Your task to perform on an android device: Find coffee shops on Maps Image 0: 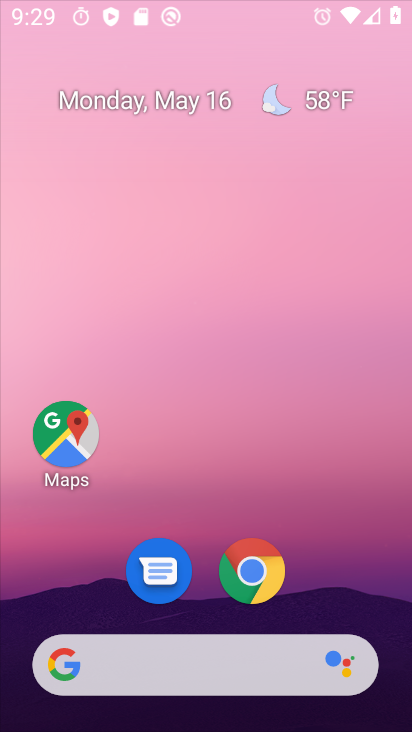
Step 0: drag from (291, 556) to (242, 163)
Your task to perform on an android device: Find coffee shops on Maps Image 1: 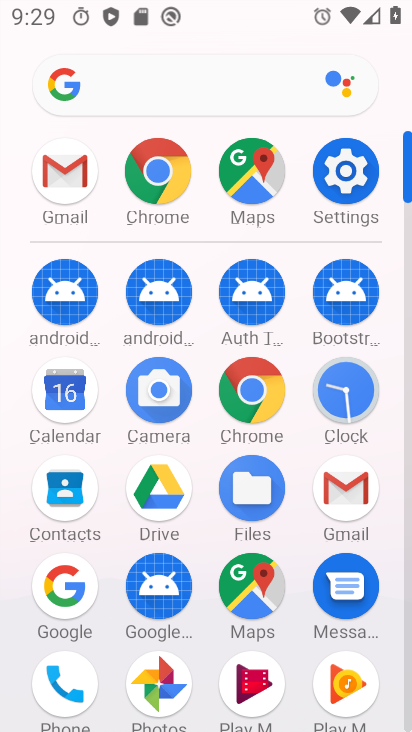
Step 1: click (235, 175)
Your task to perform on an android device: Find coffee shops on Maps Image 2: 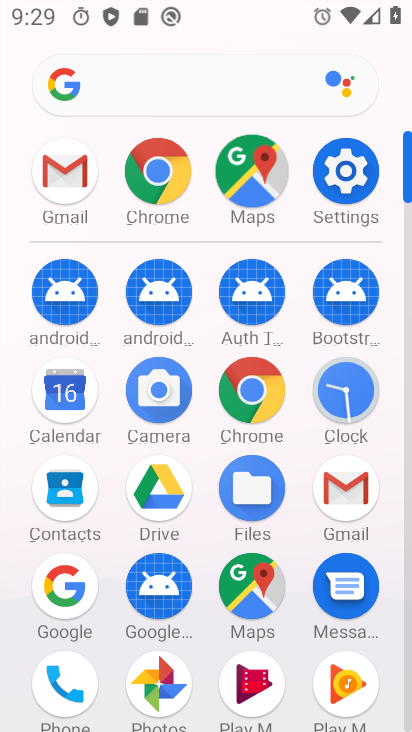
Step 2: click (238, 174)
Your task to perform on an android device: Find coffee shops on Maps Image 3: 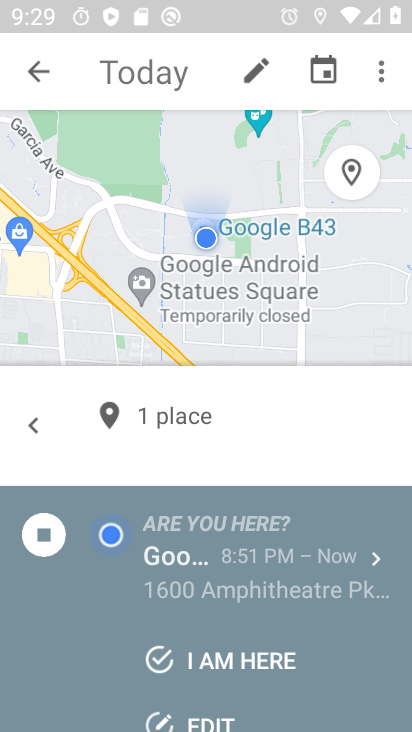
Step 3: drag from (201, 355) to (181, 101)
Your task to perform on an android device: Find coffee shops on Maps Image 4: 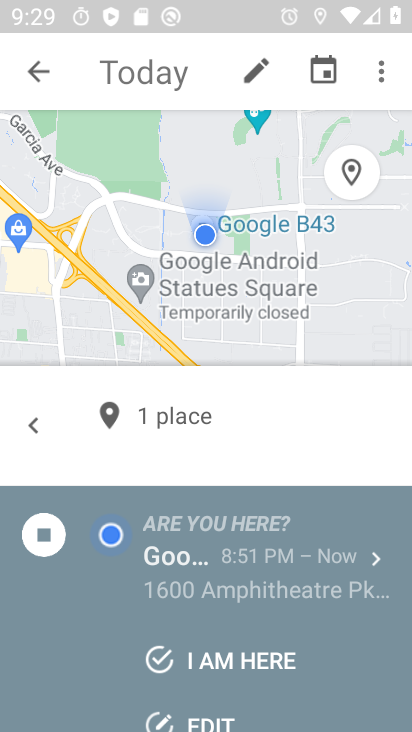
Step 4: drag from (243, 339) to (246, 156)
Your task to perform on an android device: Find coffee shops on Maps Image 5: 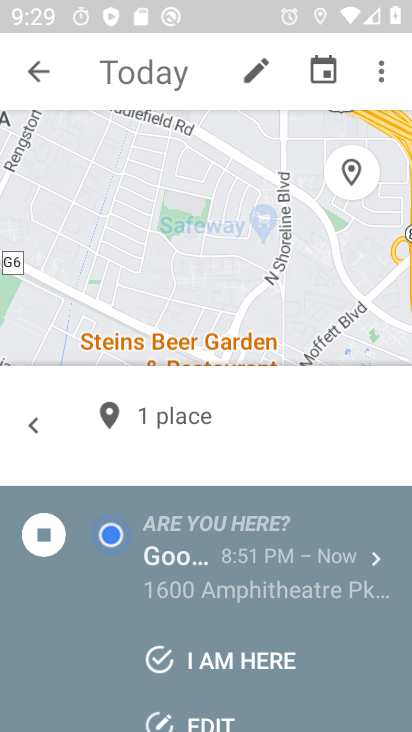
Step 5: drag from (290, 257) to (299, 37)
Your task to perform on an android device: Find coffee shops on Maps Image 6: 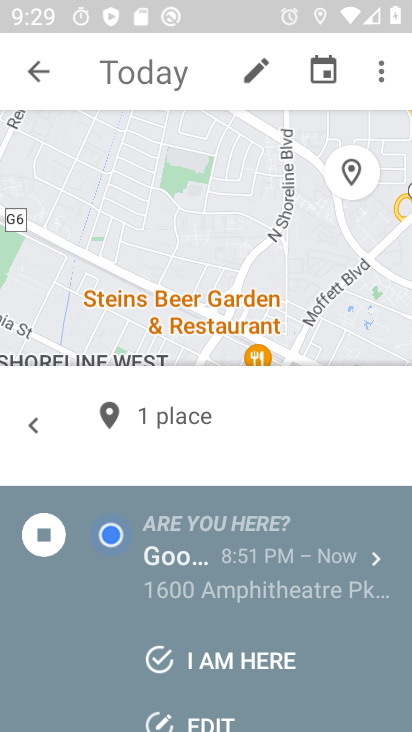
Step 6: drag from (256, 299) to (213, 41)
Your task to perform on an android device: Find coffee shops on Maps Image 7: 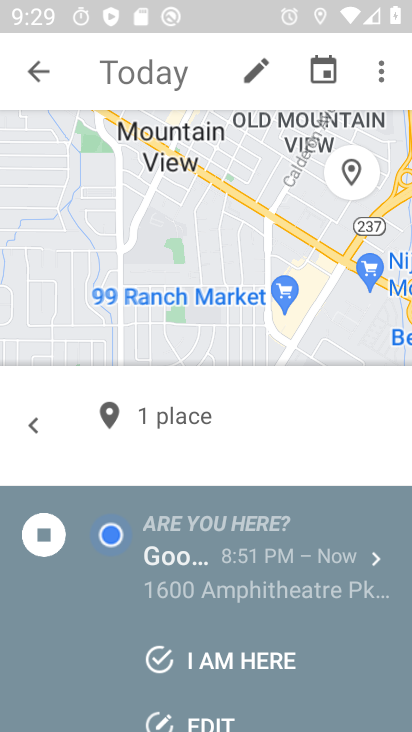
Step 7: drag from (213, 326) to (204, 94)
Your task to perform on an android device: Find coffee shops on Maps Image 8: 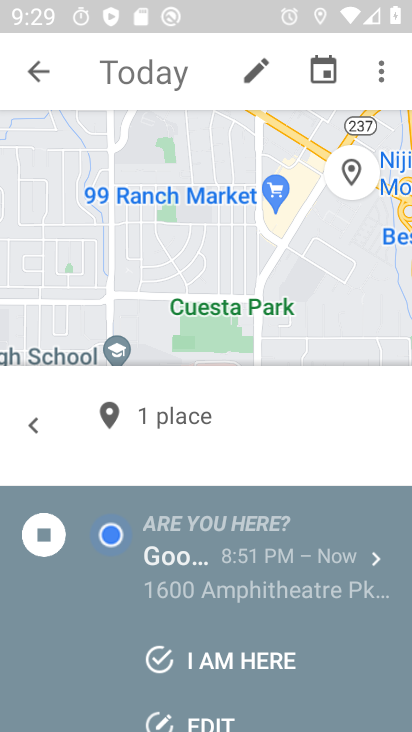
Step 8: drag from (244, 314) to (259, 36)
Your task to perform on an android device: Find coffee shops on Maps Image 9: 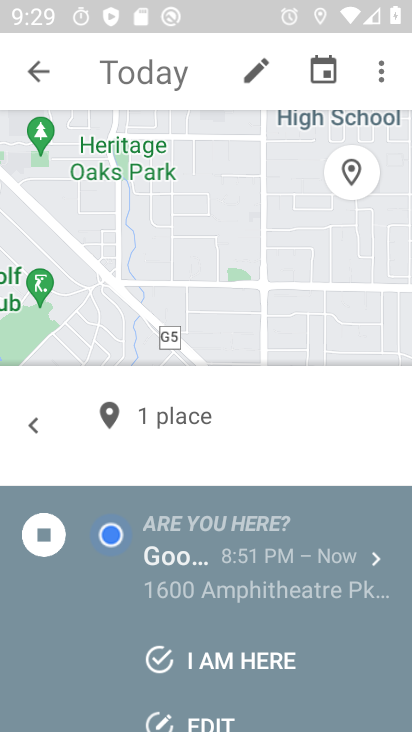
Step 9: drag from (287, 351) to (255, 82)
Your task to perform on an android device: Find coffee shops on Maps Image 10: 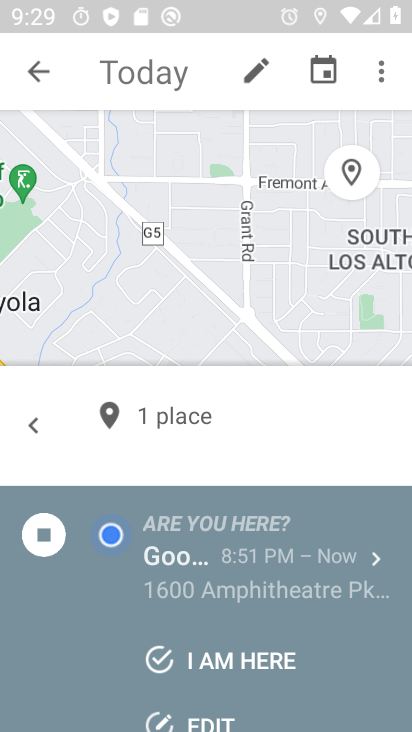
Step 10: drag from (278, 360) to (270, 119)
Your task to perform on an android device: Find coffee shops on Maps Image 11: 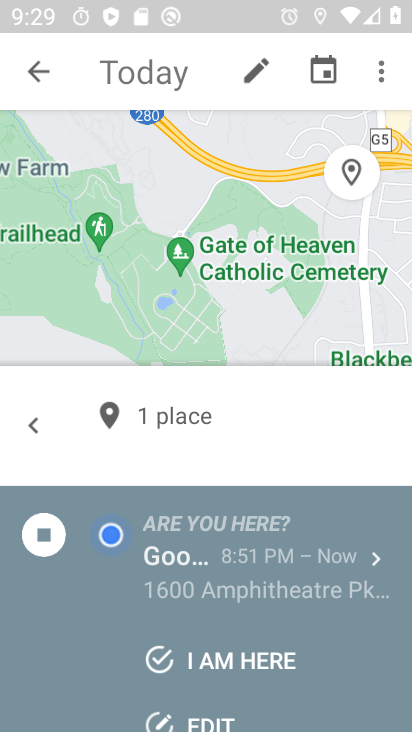
Step 11: drag from (300, 276) to (276, 110)
Your task to perform on an android device: Find coffee shops on Maps Image 12: 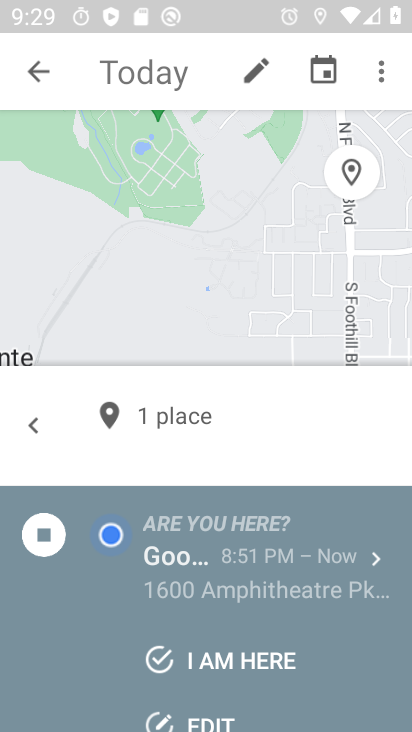
Step 12: drag from (269, 359) to (218, 93)
Your task to perform on an android device: Find coffee shops on Maps Image 13: 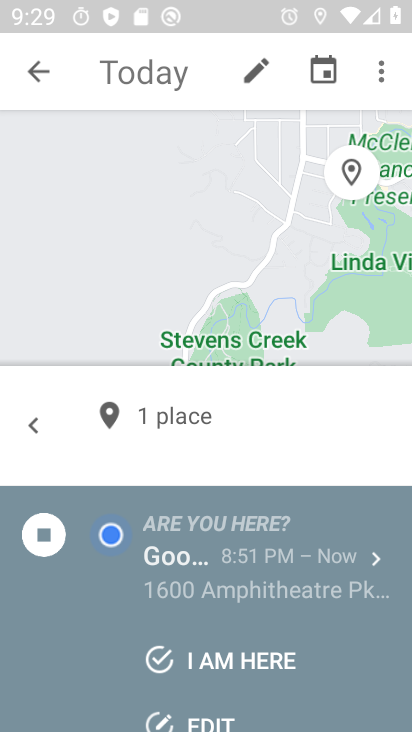
Step 13: drag from (248, 327) to (209, 62)
Your task to perform on an android device: Find coffee shops on Maps Image 14: 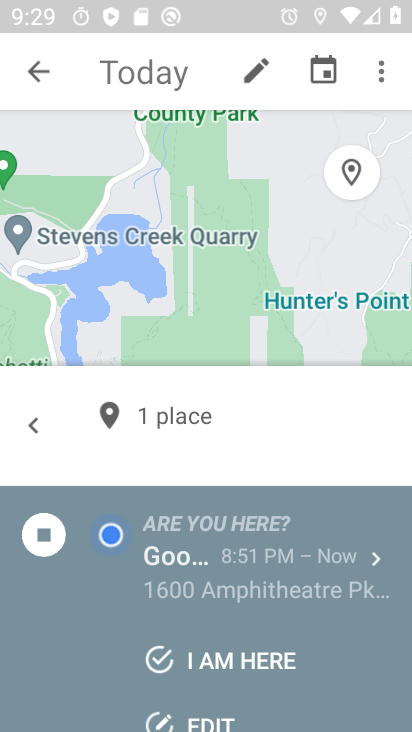
Step 14: click (173, 182)
Your task to perform on an android device: Find coffee shops on Maps Image 15: 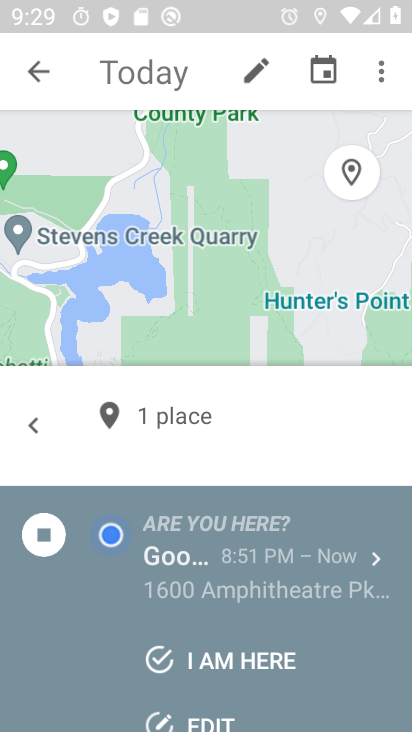
Step 15: drag from (252, 320) to (263, 153)
Your task to perform on an android device: Find coffee shops on Maps Image 16: 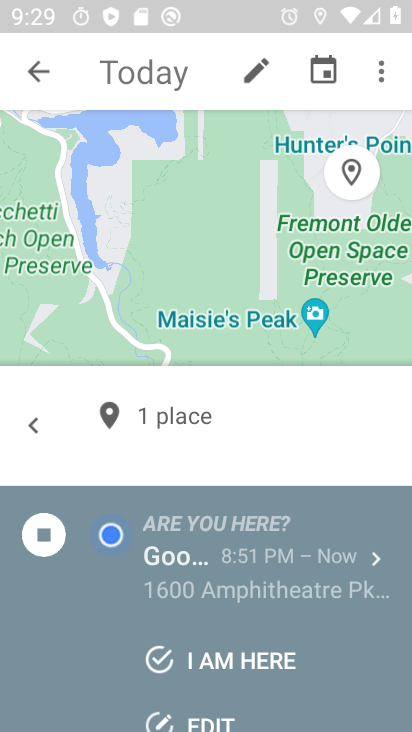
Step 16: drag from (302, 262) to (277, 120)
Your task to perform on an android device: Find coffee shops on Maps Image 17: 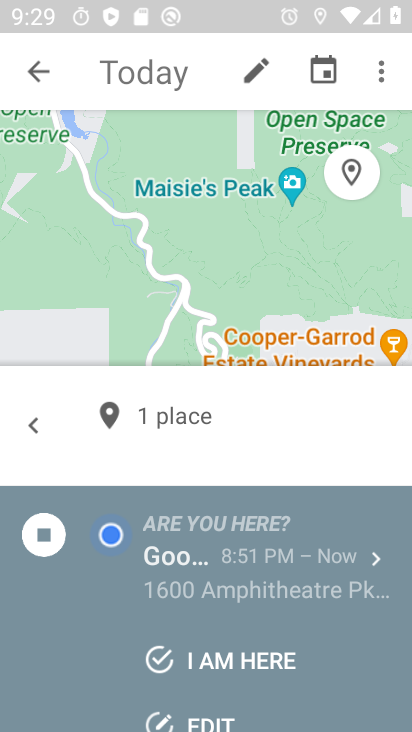
Step 17: drag from (327, 326) to (275, 76)
Your task to perform on an android device: Find coffee shops on Maps Image 18: 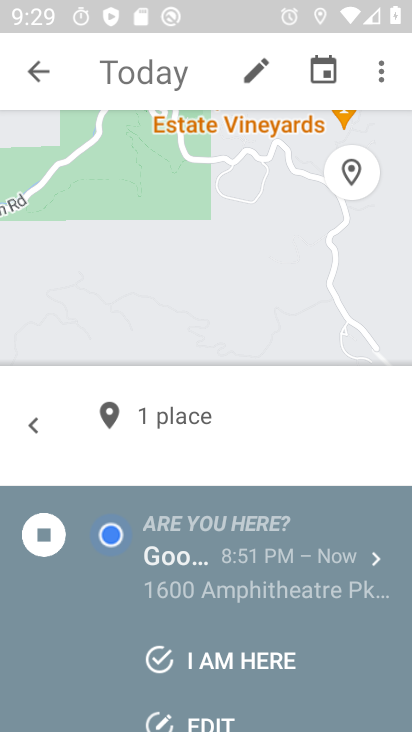
Step 18: drag from (284, 480) to (238, 183)
Your task to perform on an android device: Find coffee shops on Maps Image 19: 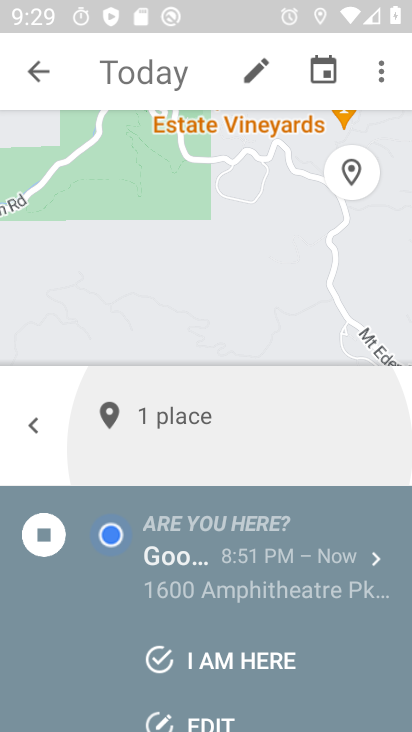
Step 19: drag from (304, 457) to (264, 207)
Your task to perform on an android device: Find coffee shops on Maps Image 20: 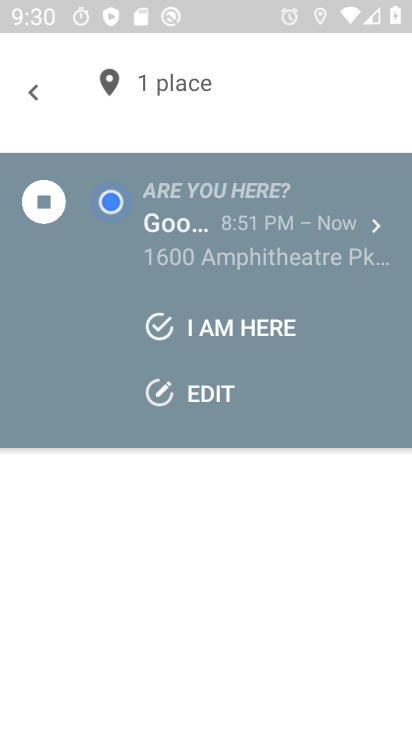
Step 20: click (42, 96)
Your task to perform on an android device: Find coffee shops on Maps Image 21: 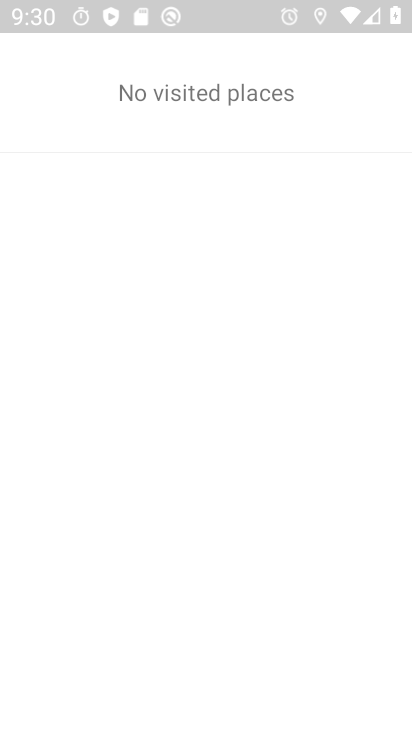
Step 21: press back button
Your task to perform on an android device: Find coffee shops on Maps Image 22: 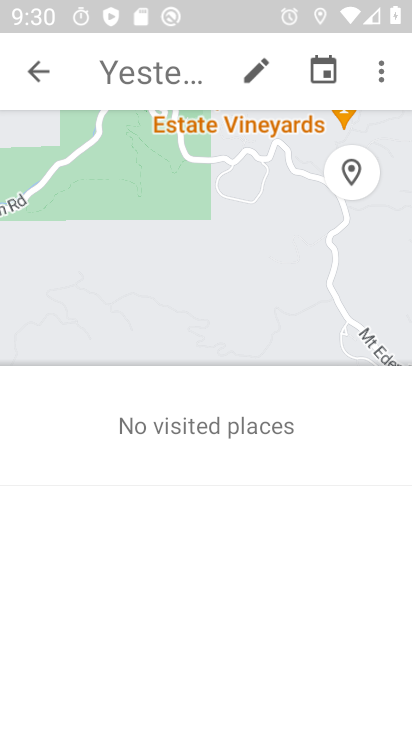
Step 22: click (40, 83)
Your task to perform on an android device: Find coffee shops on Maps Image 23: 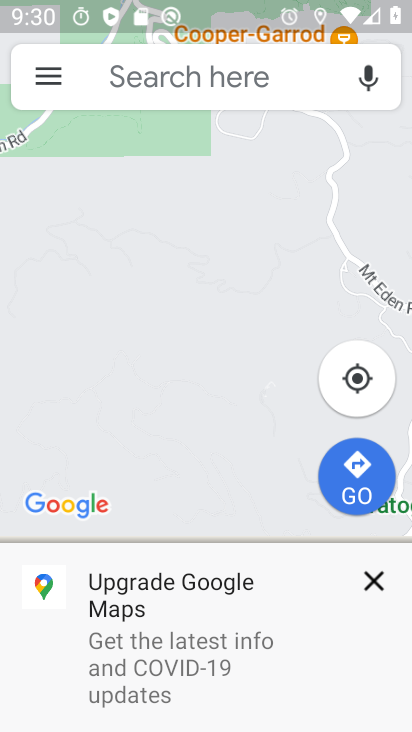
Step 23: click (107, 67)
Your task to perform on an android device: Find coffee shops on Maps Image 24: 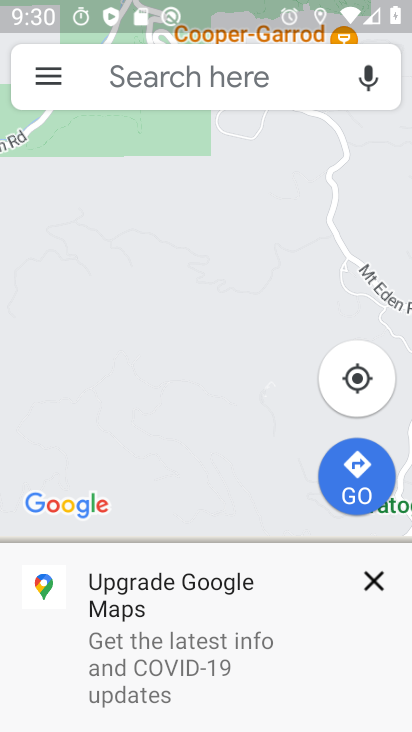
Step 24: click (108, 68)
Your task to perform on an android device: Find coffee shops on Maps Image 25: 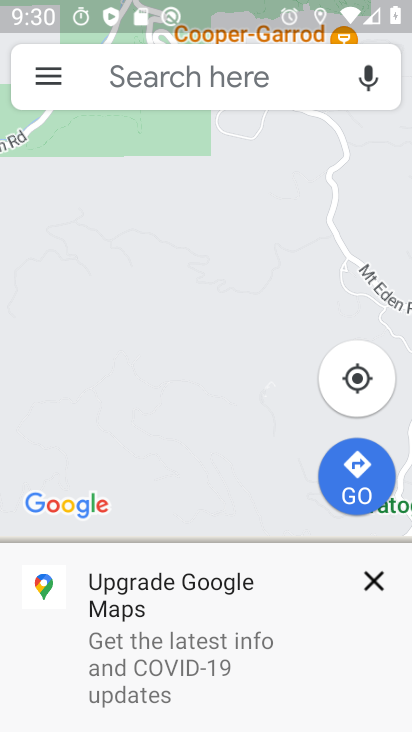
Step 25: click (109, 67)
Your task to perform on an android device: Find coffee shops on Maps Image 26: 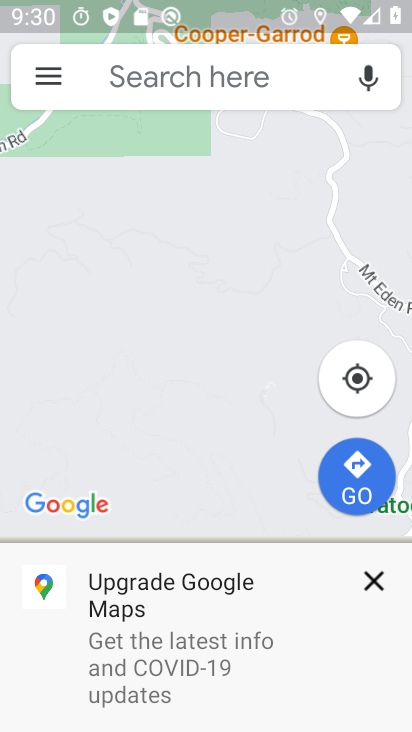
Step 26: click (109, 67)
Your task to perform on an android device: Find coffee shops on Maps Image 27: 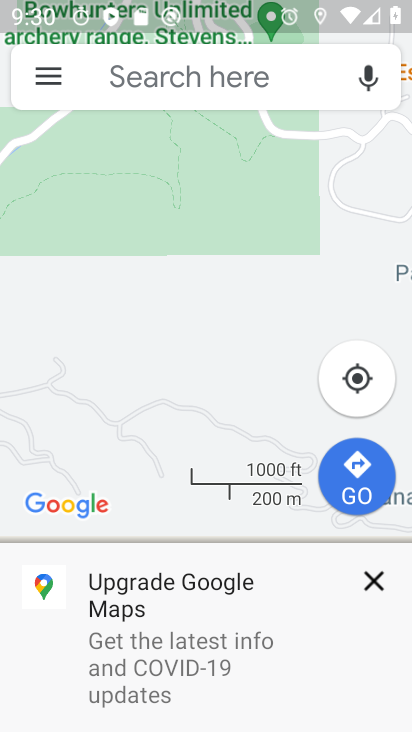
Step 27: click (122, 86)
Your task to perform on an android device: Find coffee shops on Maps Image 28: 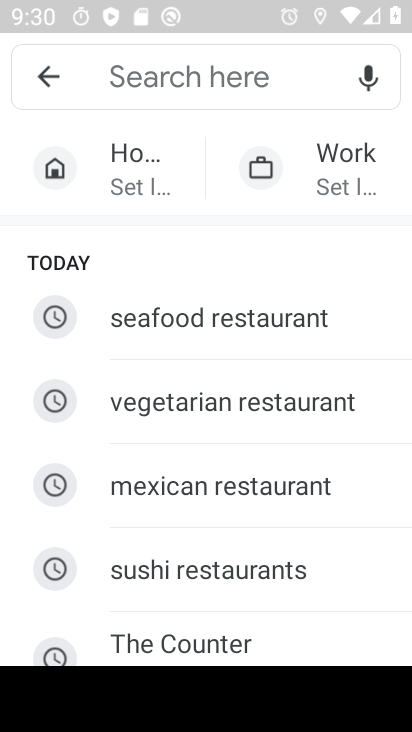
Step 28: type "coffee"
Your task to perform on an android device: Find coffee shops on Maps Image 29: 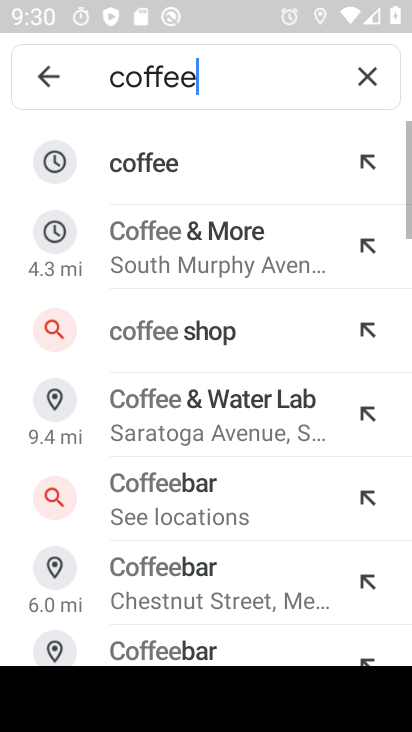
Step 29: click (140, 182)
Your task to perform on an android device: Find coffee shops on Maps Image 30: 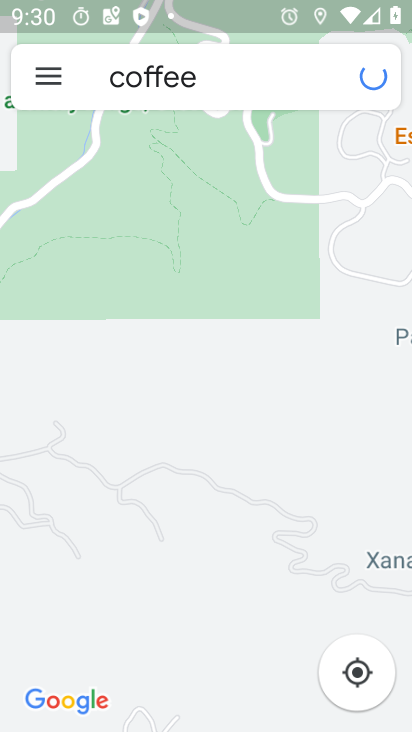
Step 30: task complete